Your task to perform on an android device: Open eBay Image 0: 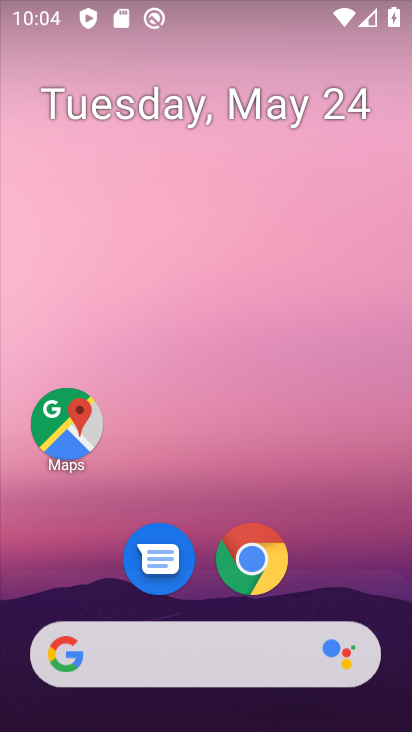
Step 0: click (258, 578)
Your task to perform on an android device: Open eBay Image 1: 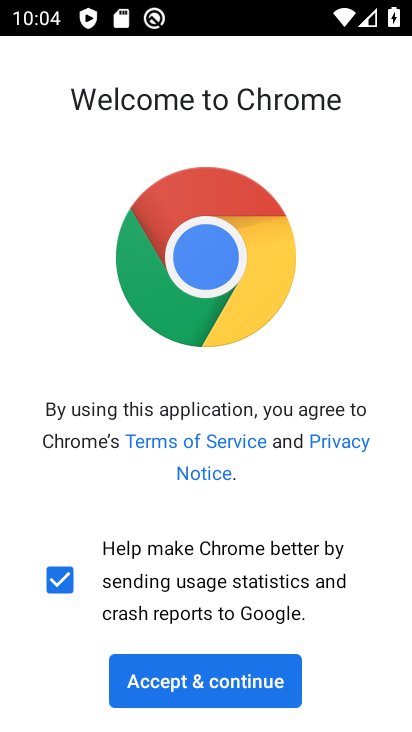
Step 1: click (189, 678)
Your task to perform on an android device: Open eBay Image 2: 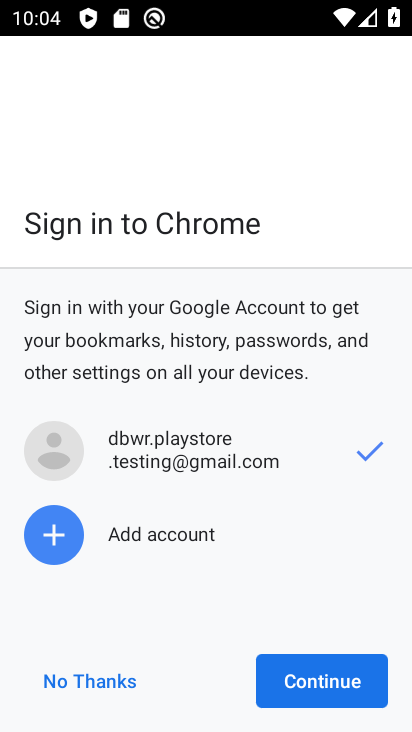
Step 2: click (313, 686)
Your task to perform on an android device: Open eBay Image 3: 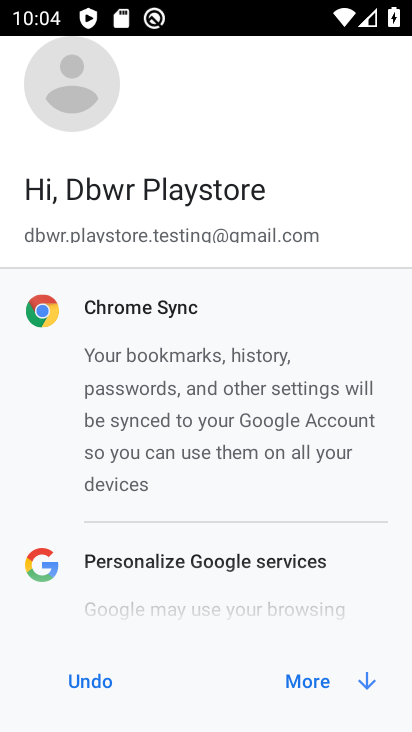
Step 3: click (313, 684)
Your task to perform on an android device: Open eBay Image 4: 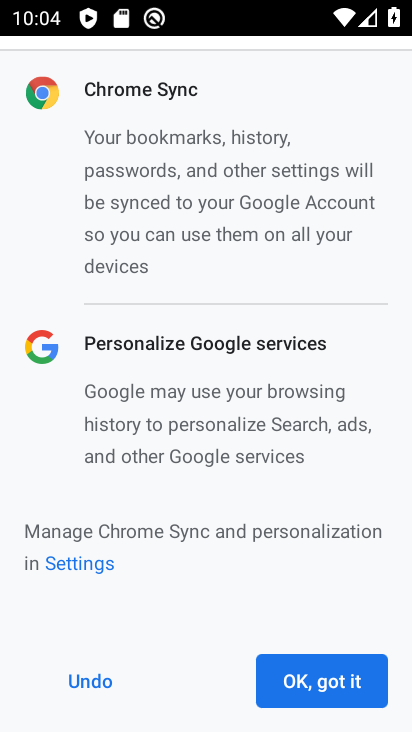
Step 4: click (313, 684)
Your task to perform on an android device: Open eBay Image 5: 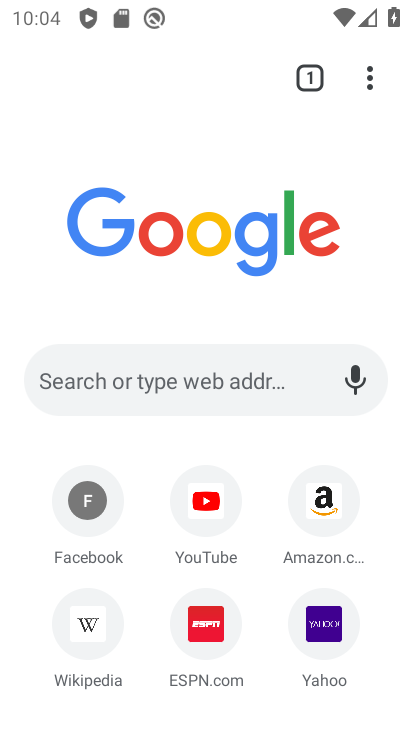
Step 5: drag from (185, 663) to (239, 417)
Your task to perform on an android device: Open eBay Image 6: 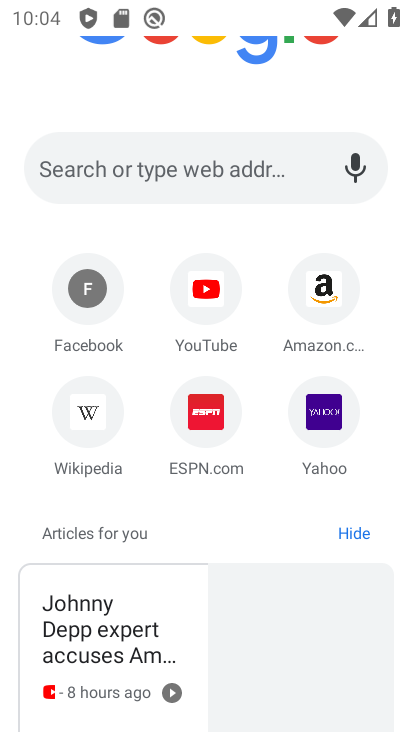
Step 6: click (141, 165)
Your task to perform on an android device: Open eBay Image 7: 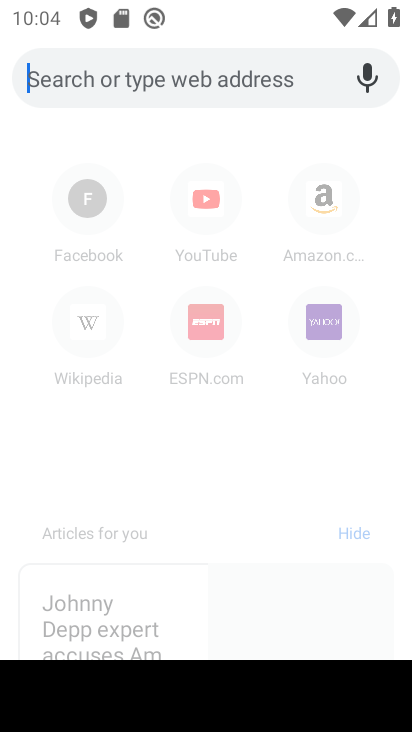
Step 7: type "ebay"
Your task to perform on an android device: Open eBay Image 8: 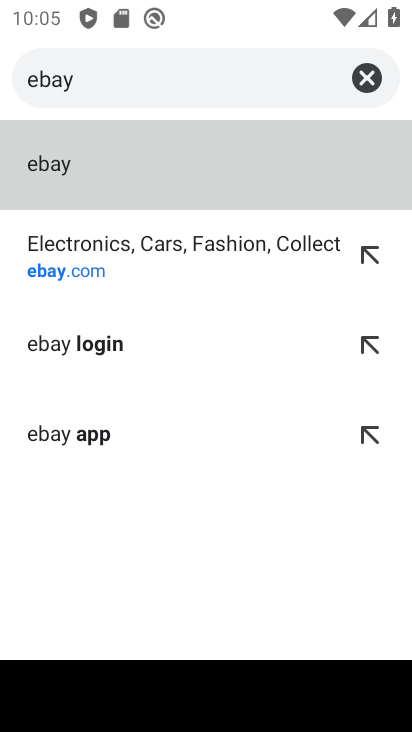
Step 8: click (109, 265)
Your task to perform on an android device: Open eBay Image 9: 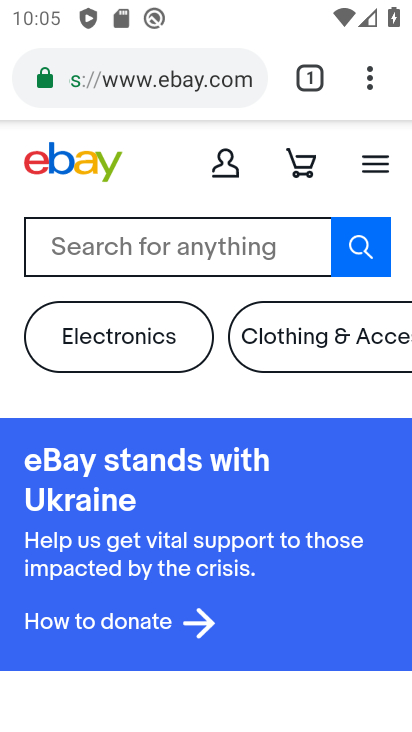
Step 9: task complete